Your task to perform on an android device: turn off smart reply in the gmail app Image 0: 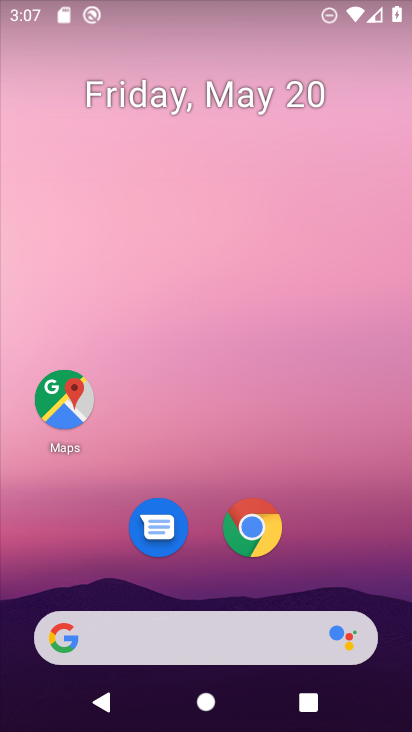
Step 0: drag from (186, 534) to (246, 14)
Your task to perform on an android device: turn off smart reply in the gmail app Image 1: 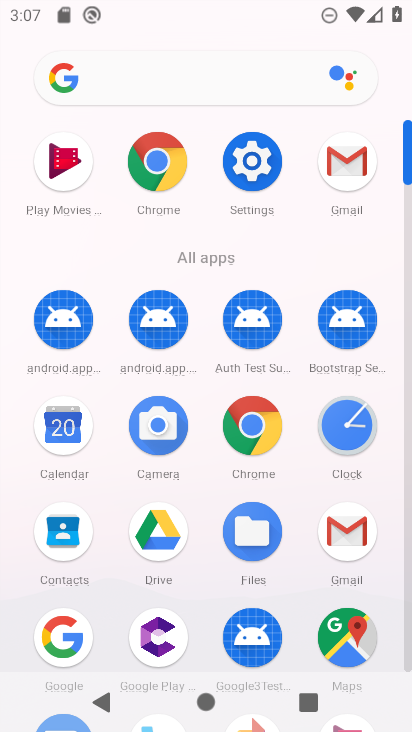
Step 1: click (347, 163)
Your task to perform on an android device: turn off smart reply in the gmail app Image 2: 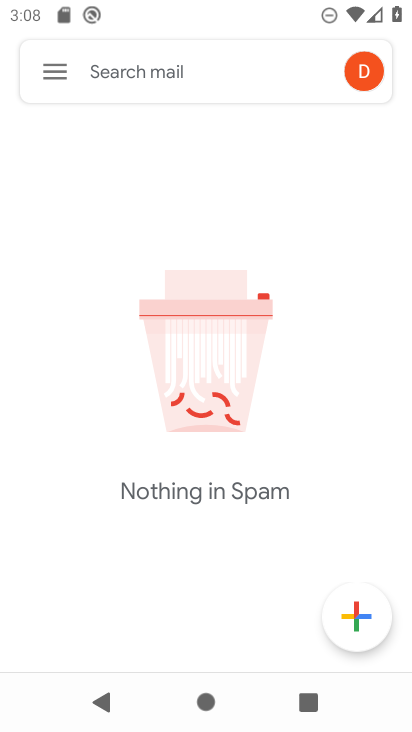
Step 2: click (50, 67)
Your task to perform on an android device: turn off smart reply in the gmail app Image 3: 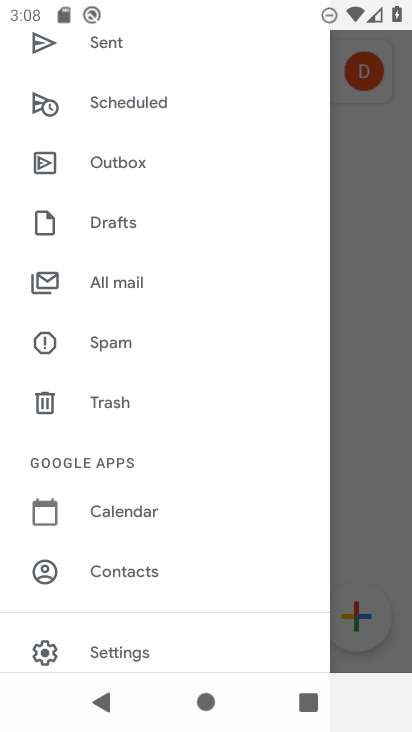
Step 3: click (126, 644)
Your task to perform on an android device: turn off smart reply in the gmail app Image 4: 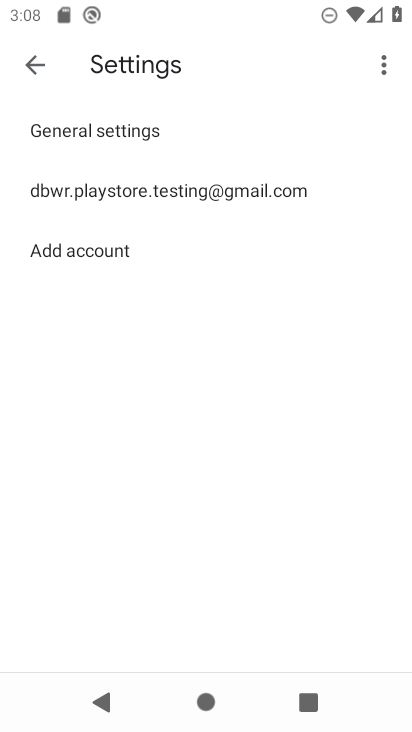
Step 4: click (71, 194)
Your task to perform on an android device: turn off smart reply in the gmail app Image 5: 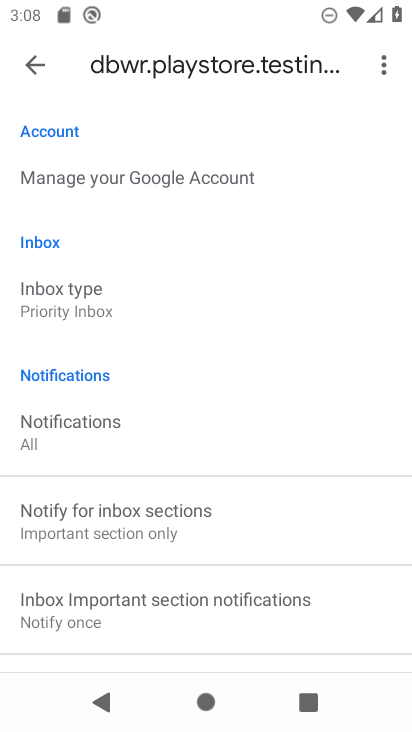
Step 5: drag from (139, 638) to (236, 62)
Your task to perform on an android device: turn off smart reply in the gmail app Image 6: 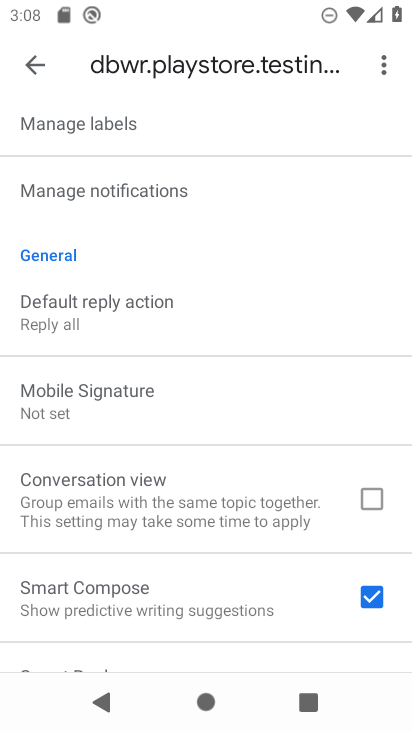
Step 6: drag from (130, 605) to (185, 216)
Your task to perform on an android device: turn off smart reply in the gmail app Image 7: 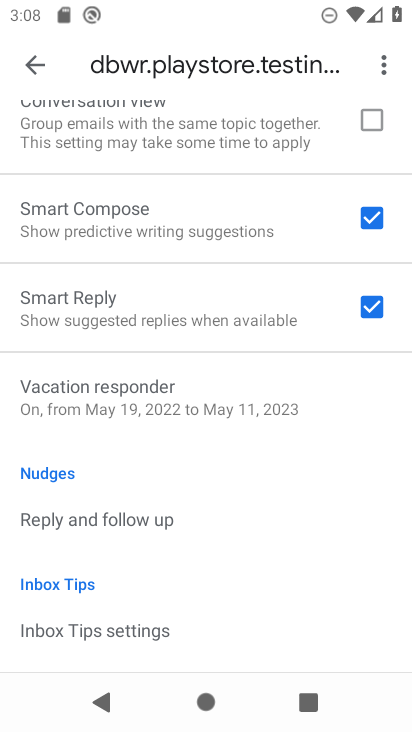
Step 7: click (375, 304)
Your task to perform on an android device: turn off smart reply in the gmail app Image 8: 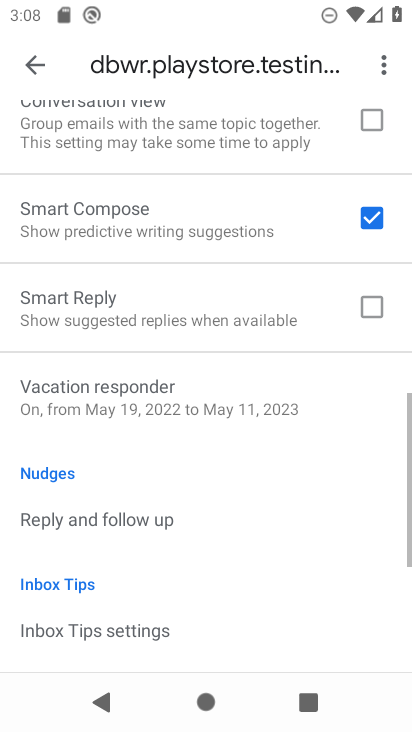
Step 8: task complete